Your task to perform on an android device: Open calendar and show me the first week of next month Image 0: 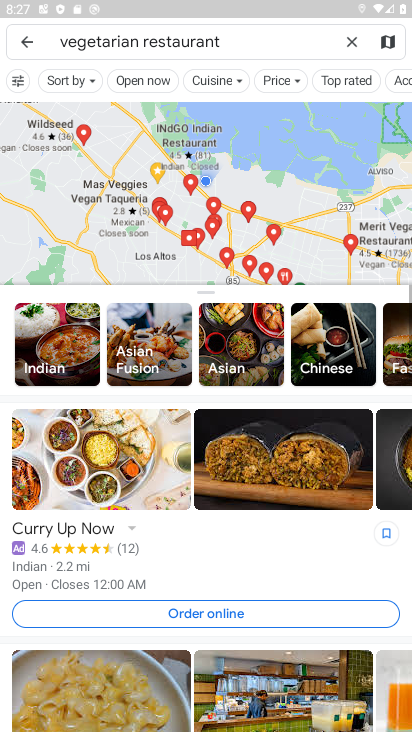
Step 0: press home button
Your task to perform on an android device: Open calendar and show me the first week of next month Image 1: 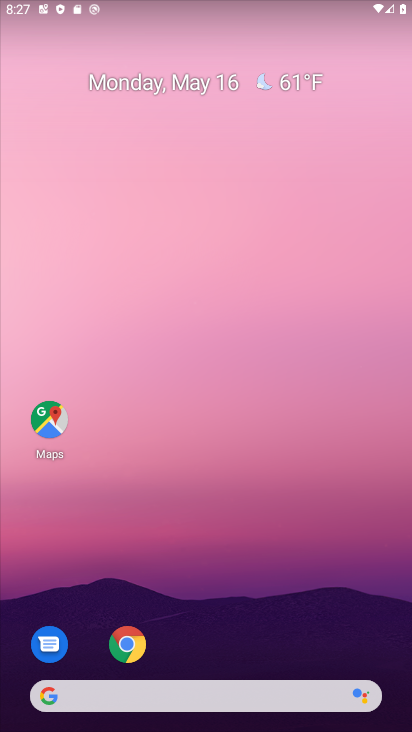
Step 1: drag from (264, 613) to (258, 152)
Your task to perform on an android device: Open calendar and show me the first week of next month Image 2: 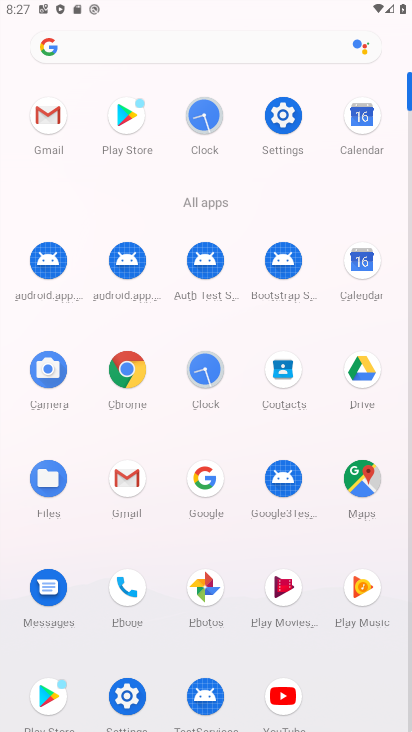
Step 2: click (361, 262)
Your task to perform on an android device: Open calendar and show me the first week of next month Image 3: 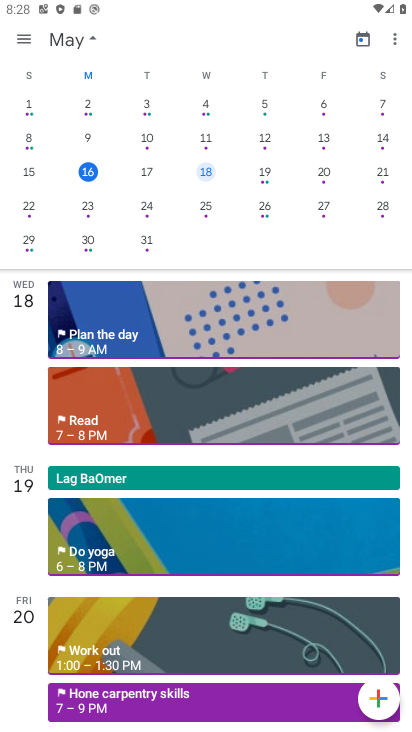
Step 3: drag from (331, 240) to (0, 237)
Your task to perform on an android device: Open calendar and show me the first week of next month Image 4: 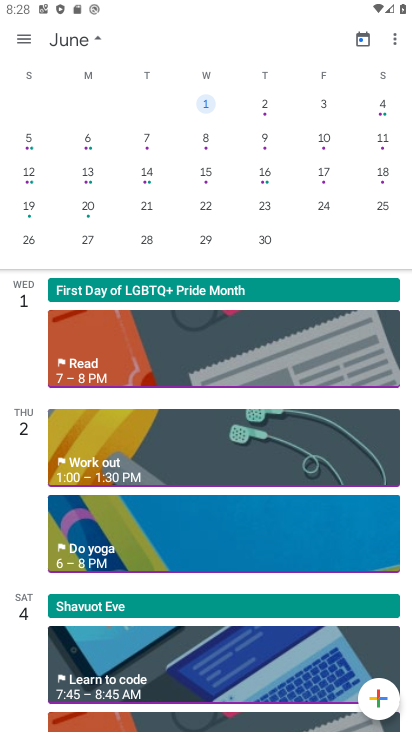
Step 4: click (325, 102)
Your task to perform on an android device: Open calendar and show me the first week of next month Image 5: 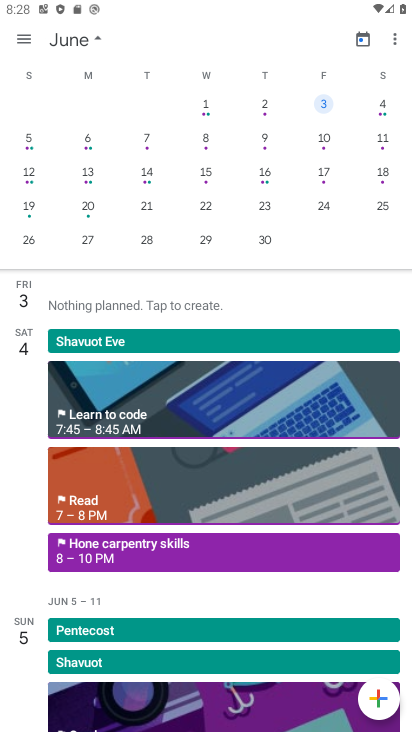
Step 5: task complete